Your task to perform on an android device: Open notification settings Image 0: 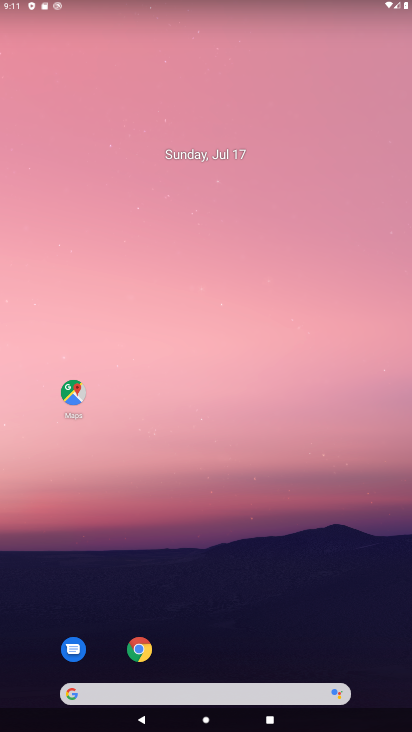
Step 0: click (330, 77)
Your task to perform on an android device: Open notification settings Image 1: 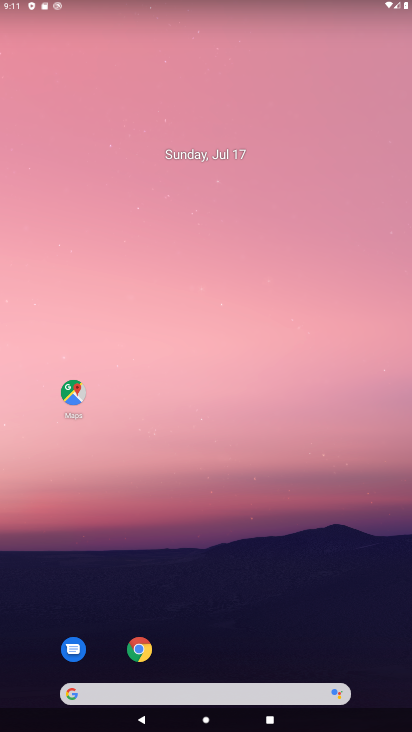
Step 1: drag from (25, 684) to (164, 146)
Your task to perform on an android device: Open notification settings Image 2: 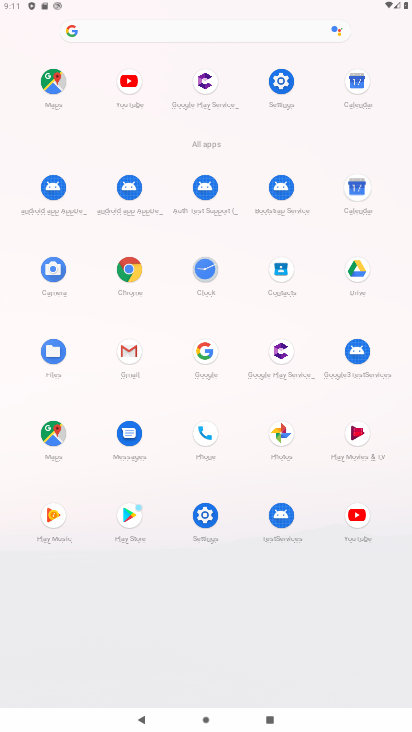
Step 2: click (204, 513)
Your task to perform on an android device: Open notification settings Image 3: 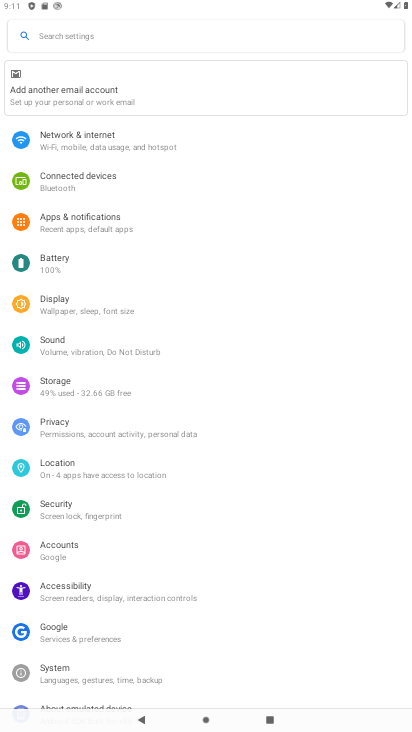
Step 3: click (83, 219)
Your task to perform on an android device: Open notification settings Image 4: 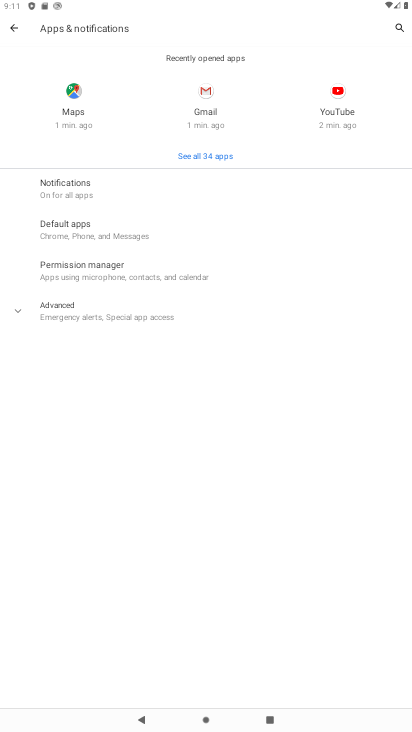
Step 4: task complete